Your task to perform on an android device: Open the web browser Image 0: 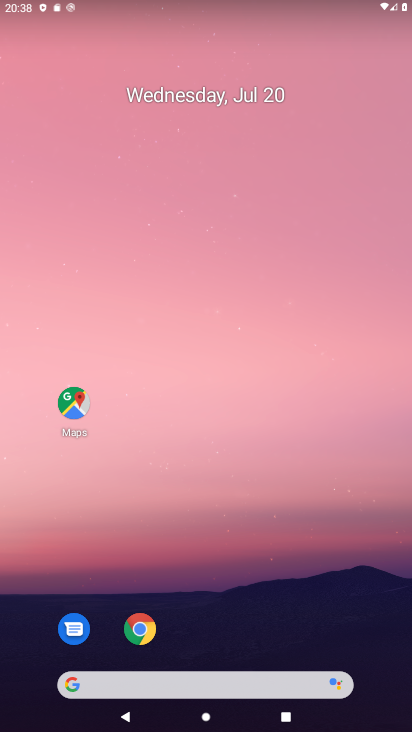
Step 0: click (134, 638)
Your task to perform on an android device: Open the web browser Image 1: 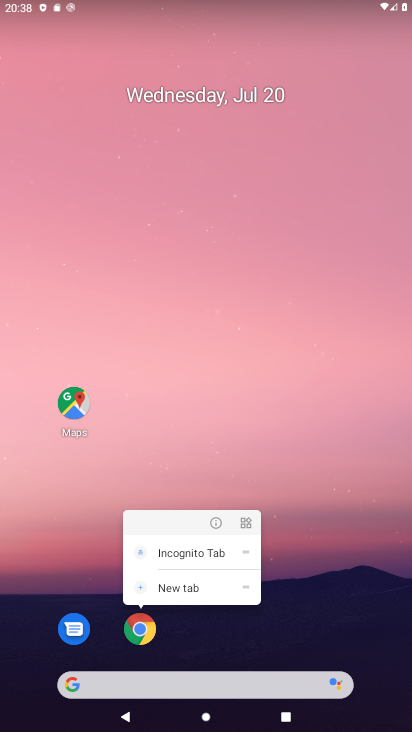
Step 1: click (72, 544)
Your task to perform on an android device: Open the web browser Image 2: 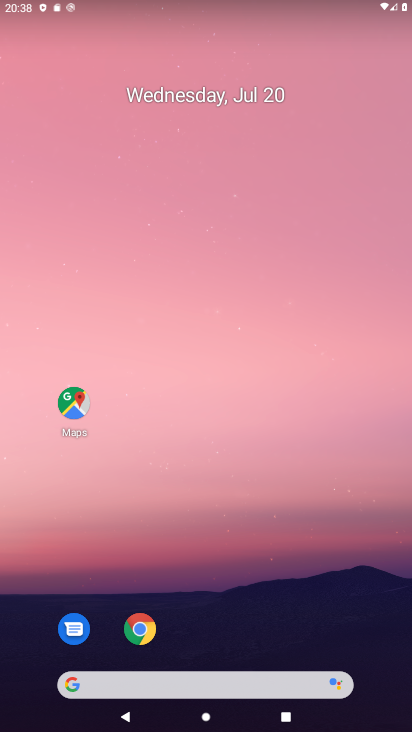
Step 2: click (136, 610)
Your task to perform on an android device: Open the web browser Image 3: 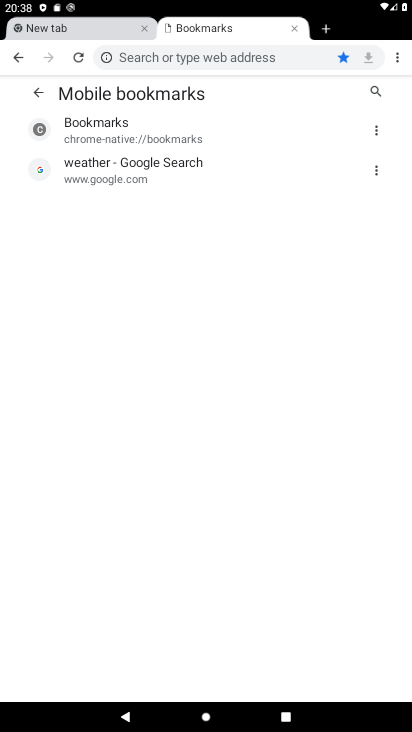
Step 3: task complete